Your task to perform on an android device: Go to location settings Image 0: 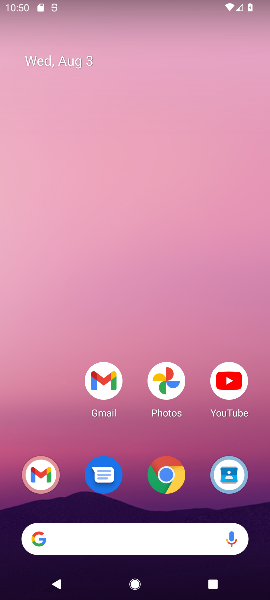
Step 0: drag from (132, 533) to (156, 136)
Your task to perform on an android device: Go to location settings Image 1: 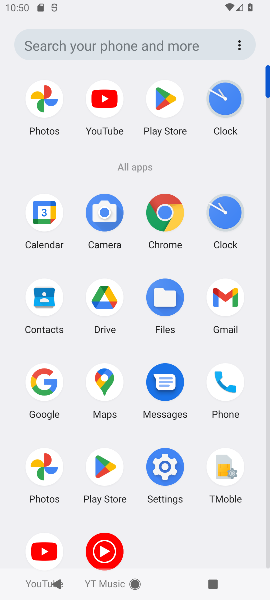
Step 1: click (168, 496)
Your task to perform on an android device: Go to location settings Image 2: 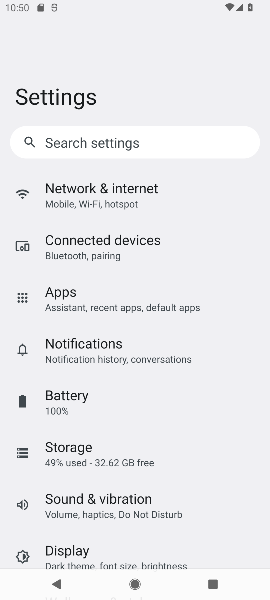
Step 2: click (93, 403)
Your task to perform on an android device: Go to location settings Image 3: 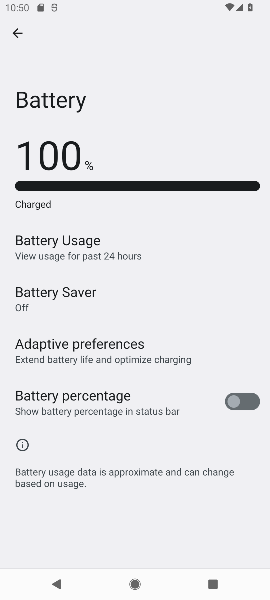
Step 3: task complete